Your task to perform on an android device: see sites visited before in the chrome app Image 0: 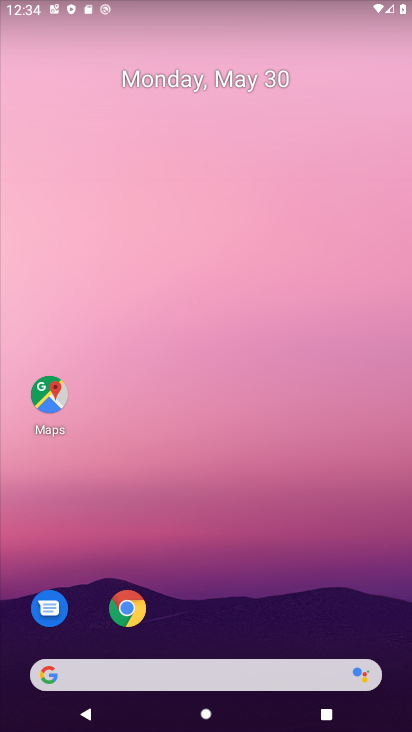
Step 0: click (119, 601)
Your task to perform on an android device: see sites visited before in the chrome app Image 1: 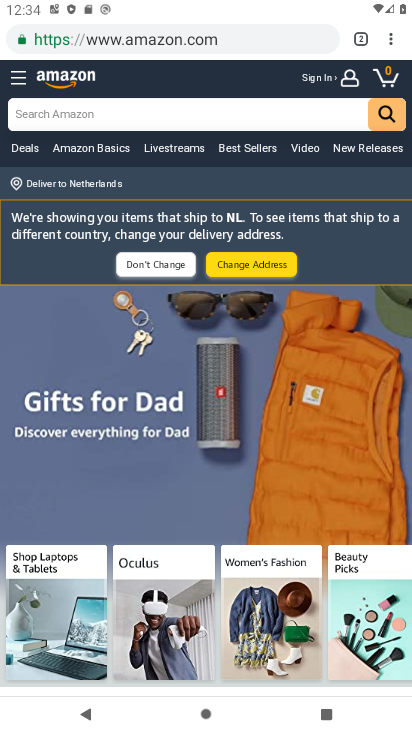
Step 1: click (393, 37)
Your task to perform on an android device: see sites visited before in the chrome app Image 2: 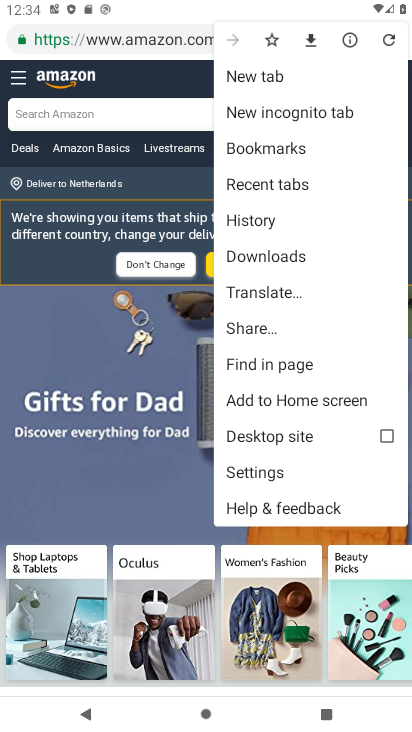
Step 2: click (255, 463)
Your task to perform on an android device: see sites visited before in the chrome app Image 3: 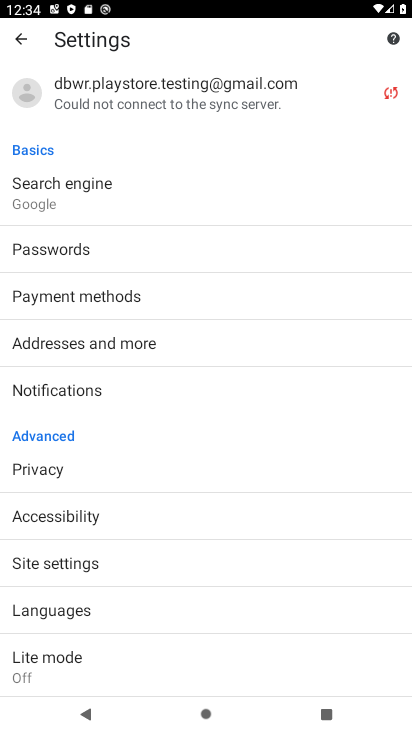
Step 3: click (70, 558)
Your task to perform on an android device: see sites visited before in the chrome app Image 4: 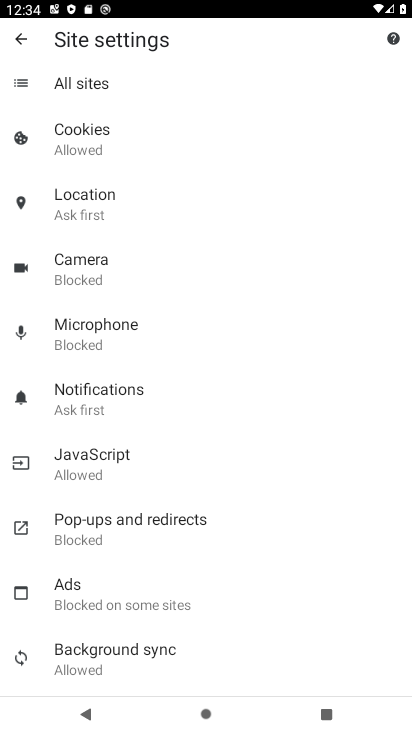
Step 4: drag from (221, 603) to (190, 126)
Your task to perform on an android device: see sites visited before in the chrome app Image 5: 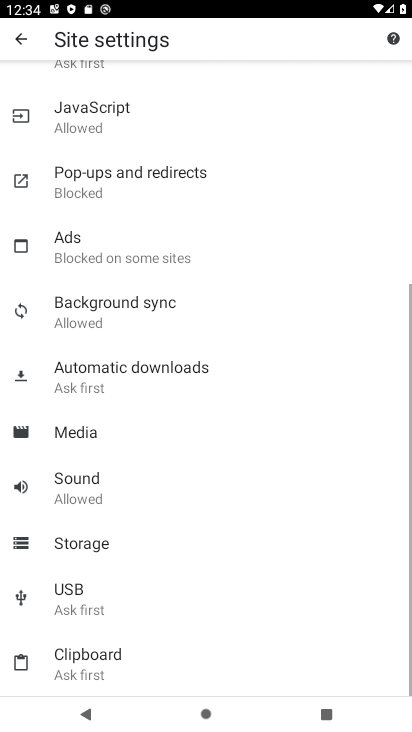
Step 5: drag from (201, 551) to (216, 136)
Your task to perform on an android device: see sites visited before in the chrome app Image 6: 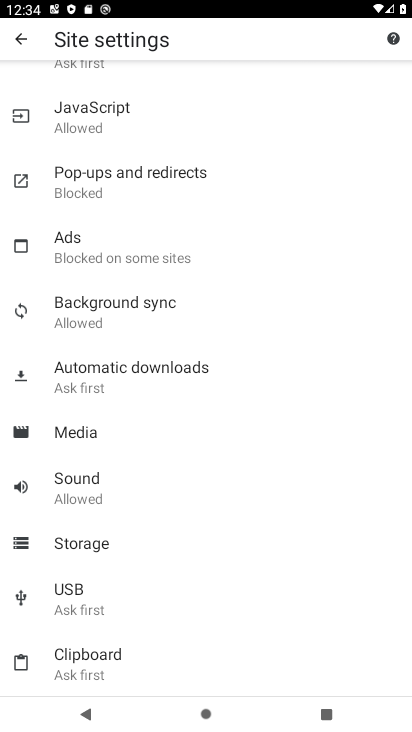
Step 6: drag from (172, 601) to (163, 194)
Your task to perform on an android device: see sites visited before in the chrome app Image 7: 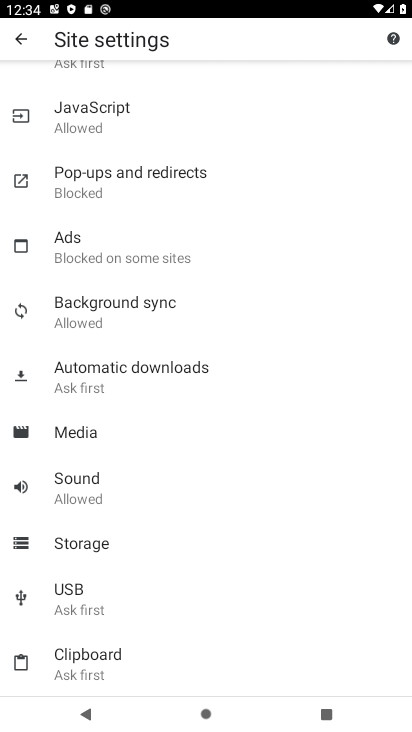
Step 7: drag from (213, 123) to (243, 597)
Your task to perform on an android device: see sites visited before in the chrome app Image 8: 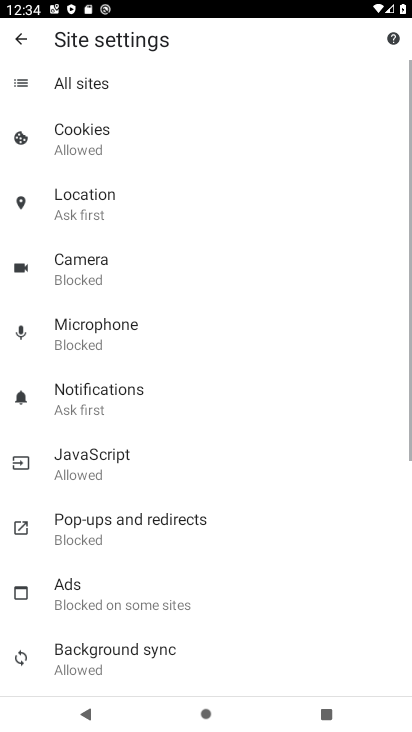
Step 8: drag from (286, 192) to (248, 658)
Your task to perform on an android device: see sites visited before in the chrome app Image 9: 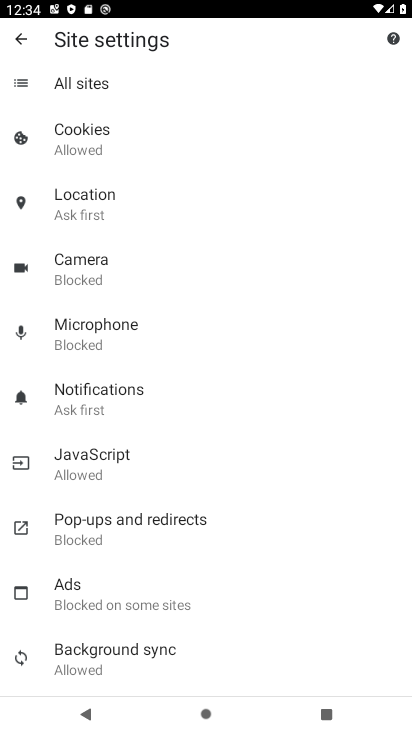
Step 9: click (242, 83)
Your task to perform on an android device: see sites visited before in the chrome app Image 10: 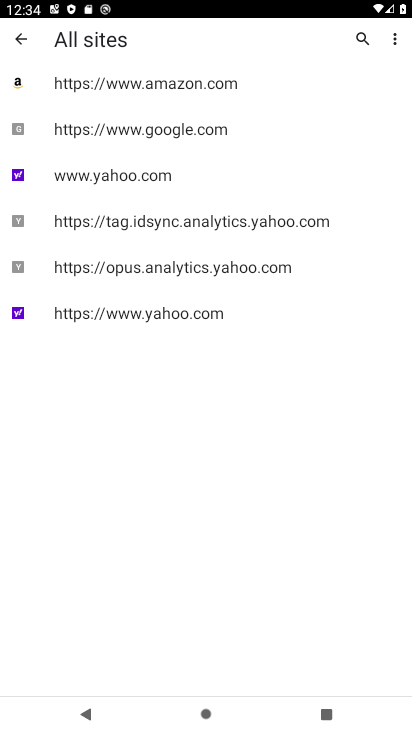
Step 10: press back button
Your task to perform on an android device: see sites visited before in the chrome app Image 11: 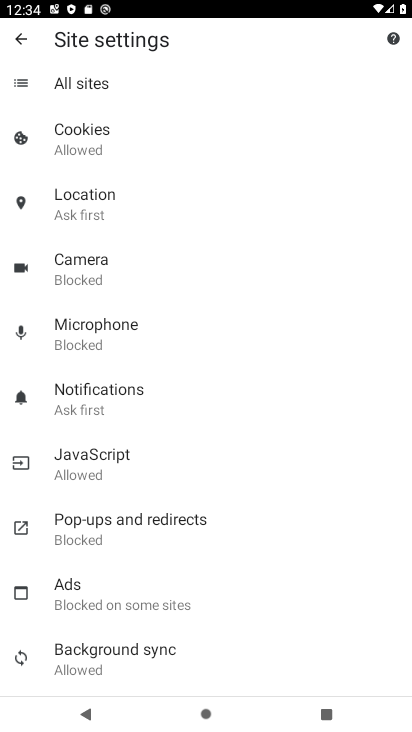
Step 11: drag from (175, 558) to (172, 203)
Your task to perform on an android device: see sites visited before in the chrome app Image 12: 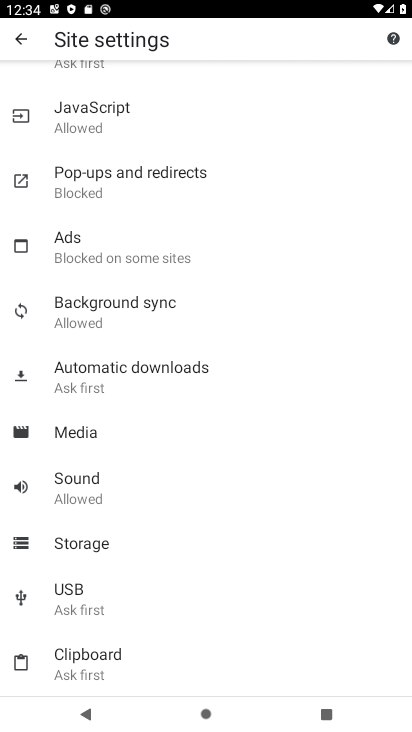
Step 12: drag from (137, 453) to (104, 116)
Your task to perform on an android device: see sites visited before in the chrome app Image 13: 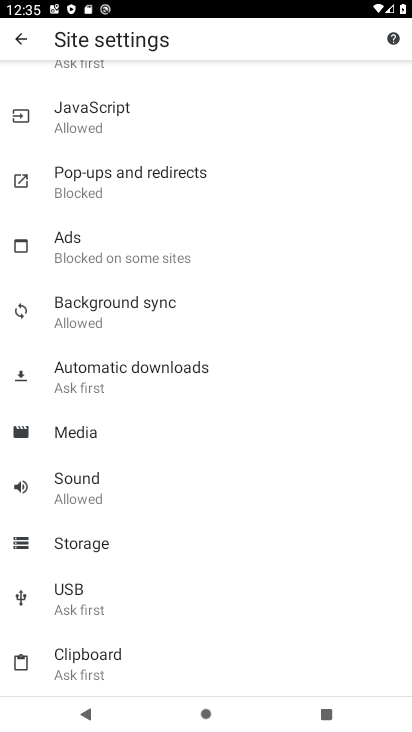
Step 13: drag from (241, 550) to (223, 213)
Your task to perform on an android device: see sites visited before in the chrome app Image 14: 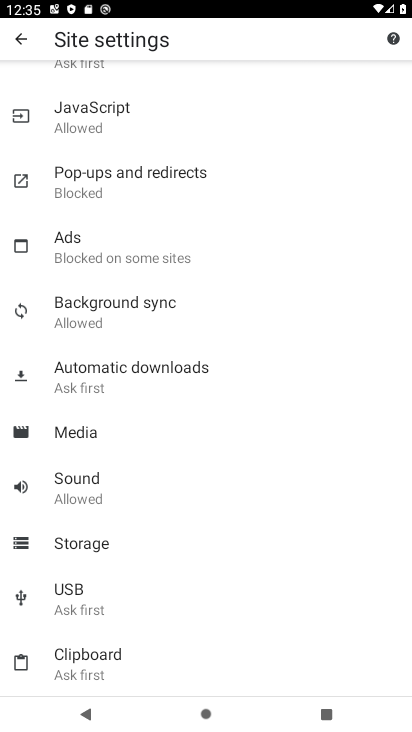
Step 14: drag from (255, 117) to (283, 707)
Your task to perform on an android device: see sites visited before in the chrome app Image 15: 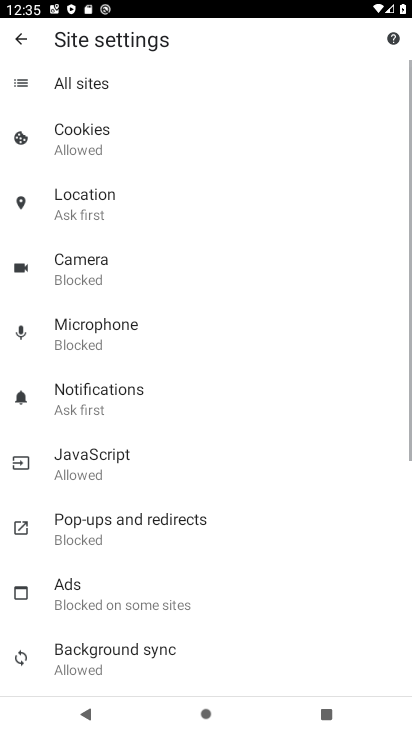
Step 15: drag from (236, 181) to (272, 510)
Your task to perform on an android device: see sites visited before in the chrome app Image 16: 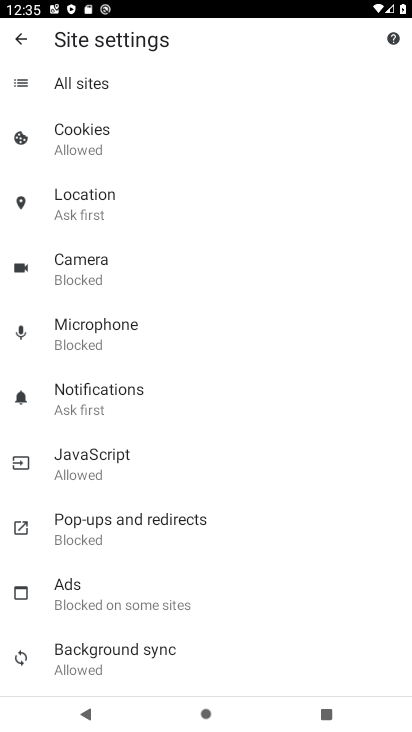
Step 16: click (181, 81)
Your task to perform on an android device: see sites visited before in the chrome app Image 17: 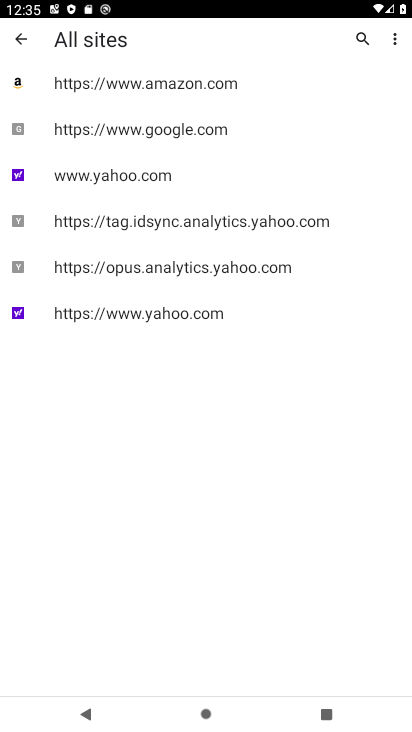
Step 17: task complete